Your task to perform on an android device: turn on javascript in the chrome app Image 0: 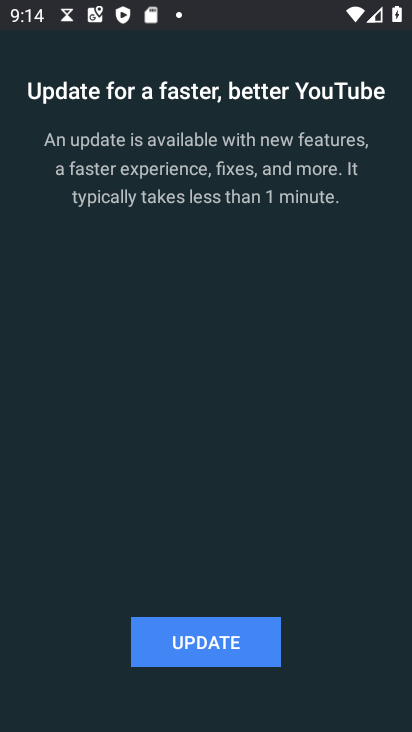
Step 0: press back button
Your task to perform on an android device: turn on javascript in the chrome app Image 1: 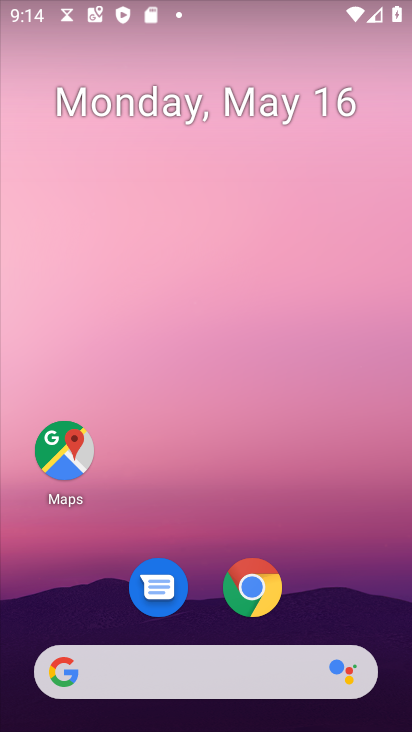
Step 1: click (263, 587)
Your task to perform on an android device: turn on javascript in the chrome app Image 2: 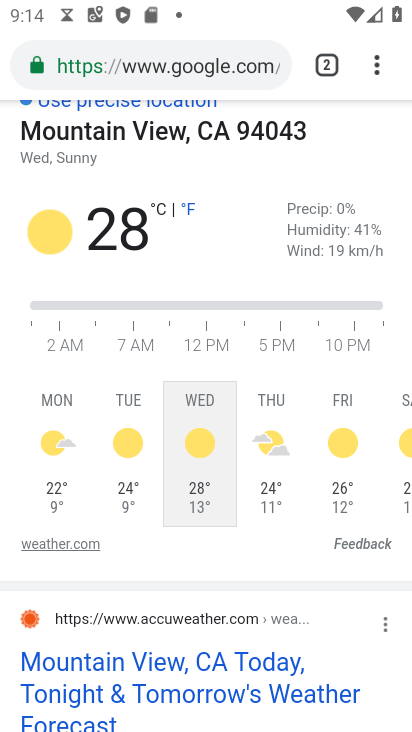
Step 2: click (378, 75)
Your task to perform on an android device: turn on javascript in the chrome app Image 3: 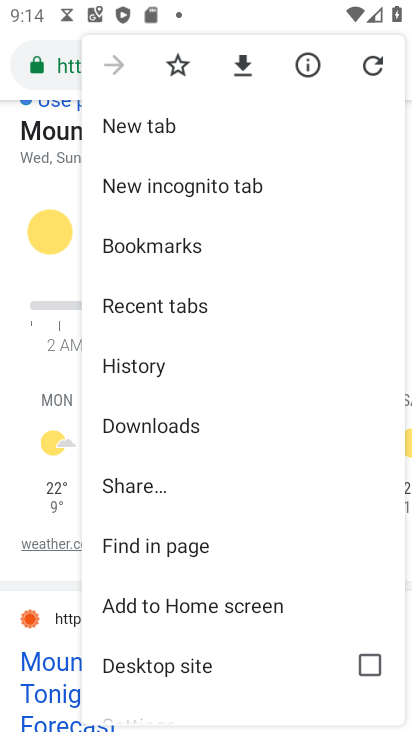
Step 3: drag from (196, 641) to (217, 194)
Your task to perform on an android device: turn on javascript in the chrome app Image 4: 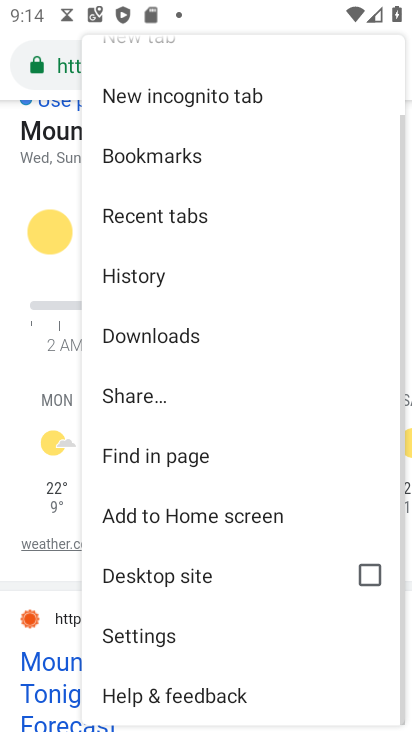
Step 4: click (144, 651)
Your task to perform on an android device: turn on javascript in the chrome app Image 5: 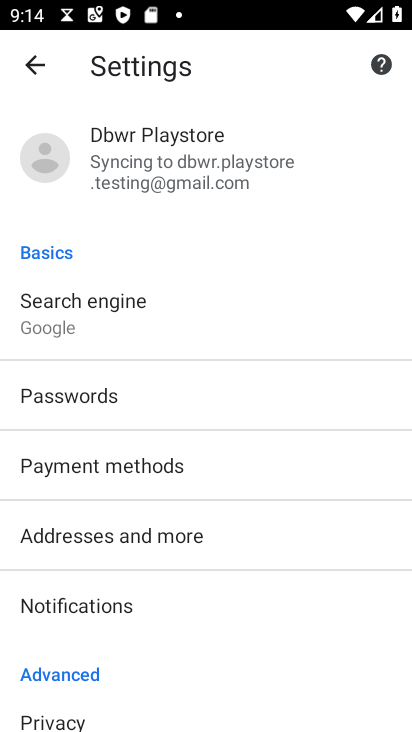
Step 5: drag from (219, 693) to (214, 288)
Your task to perform on an android device: turn on javascript in the chrome app Image 6: 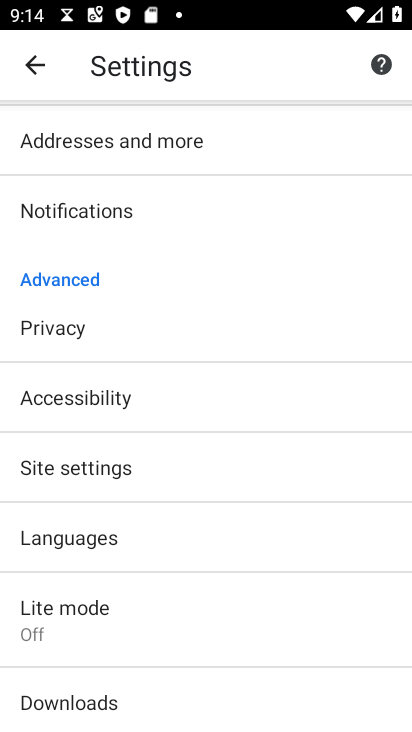
Step 6: click (217, 464)
Your task to perform on an android device: turn on javascript in the chrome app Image 7: 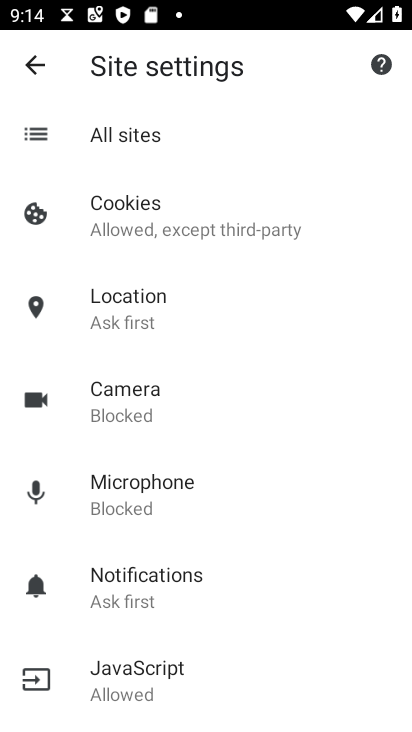
Step 7: drag from (290, 649) to (303, 421)
Your task to perform on an android device: turn on javascript in the chrome app Image 8: 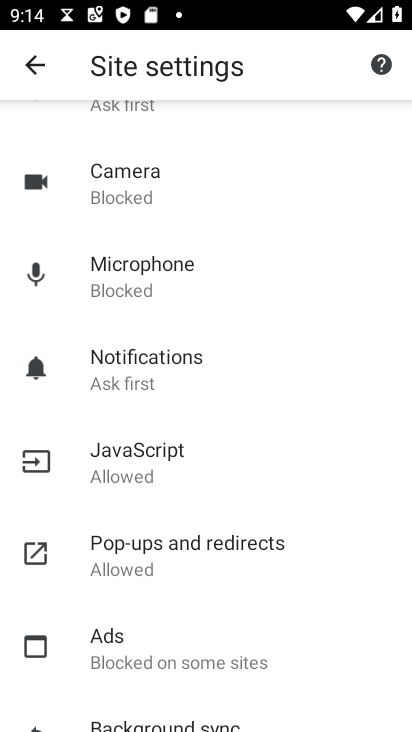
Step 8: click (292, 444)
Your task to perform on an android device: turn on javascript in the chrome app Image 9: 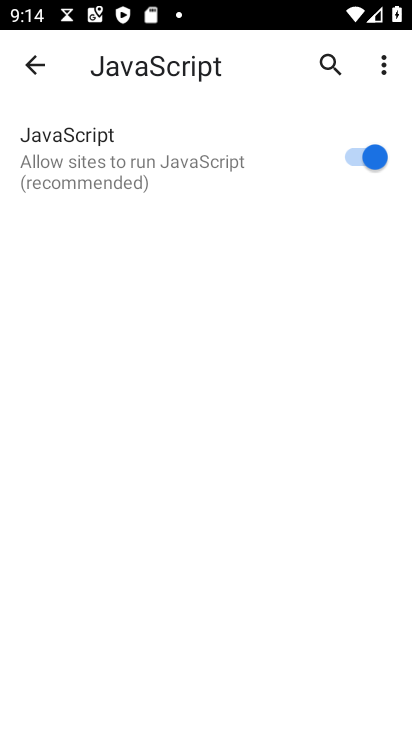
Step 9: task complete